Your task to perform on an android device: turn on location history Image 0: 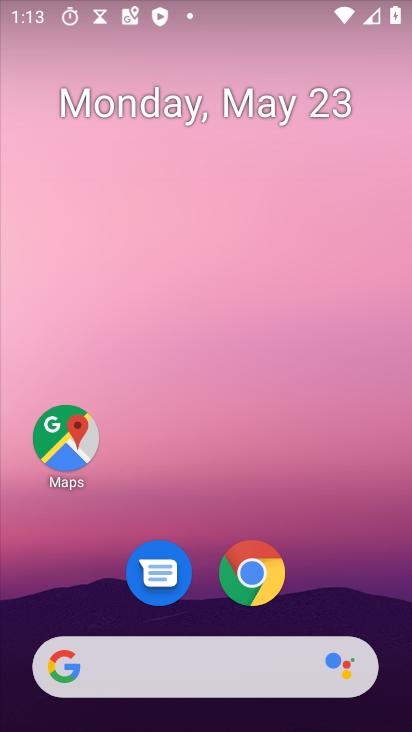
Step 0: press home button
Your task to perform on an android device: turn on location history Image 1: 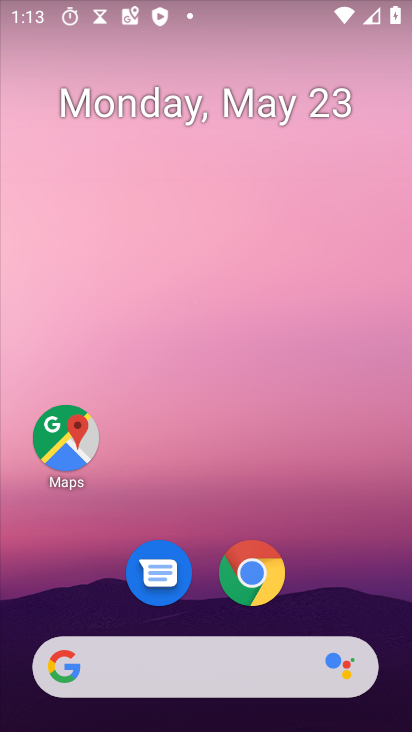
Step 1: click (71, 427)
Your task to perform on an android device: turn on location history Image 2: 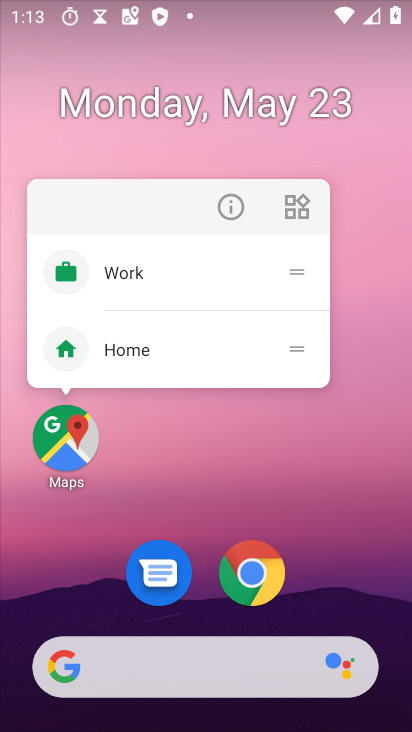
Step 2: click (77, 457)
Your task to perform on an android device: turn on location history Image 3: 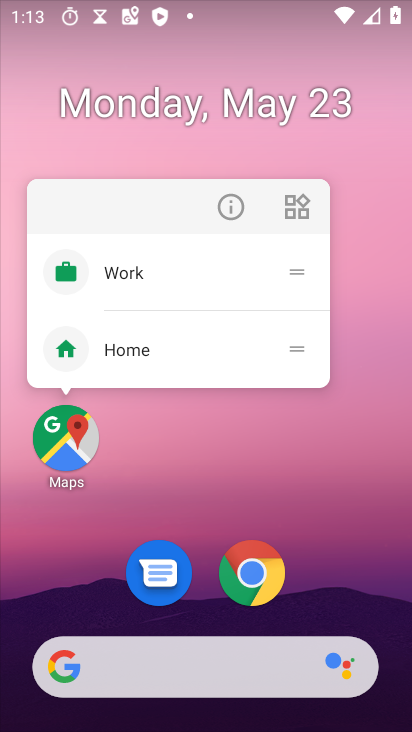
Step 3: click (68, 460)
Your task to perform on an android device: turn on location history Image 4: 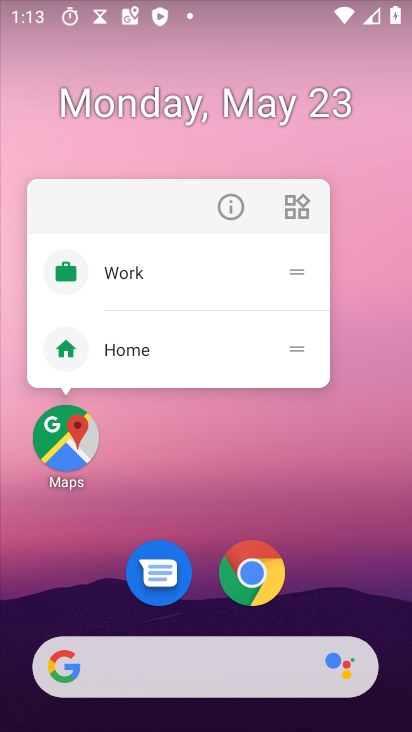
Step 4: click (61, 450)
Your task to perform on an android device: turn on location history Image 5: 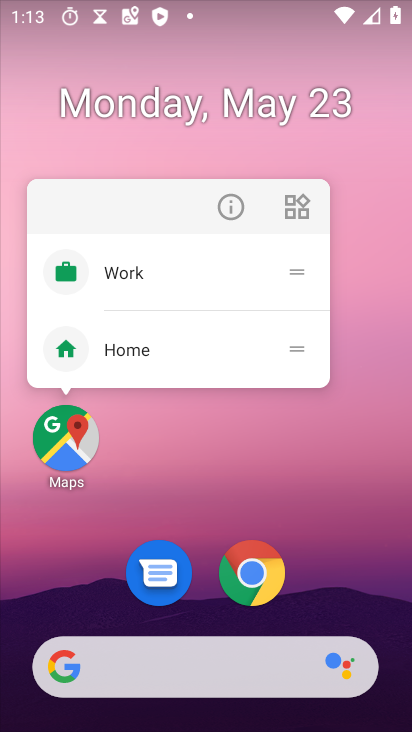
Step 5: click (66, 444)
Your task to perform on an android device: turn on location history Image 6: 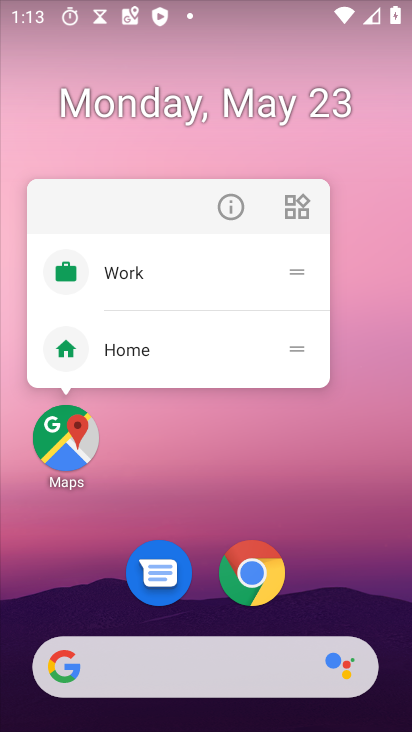
Step 6: click (62, 454)
Your task to perform on an android device: turn on location history Image 7: 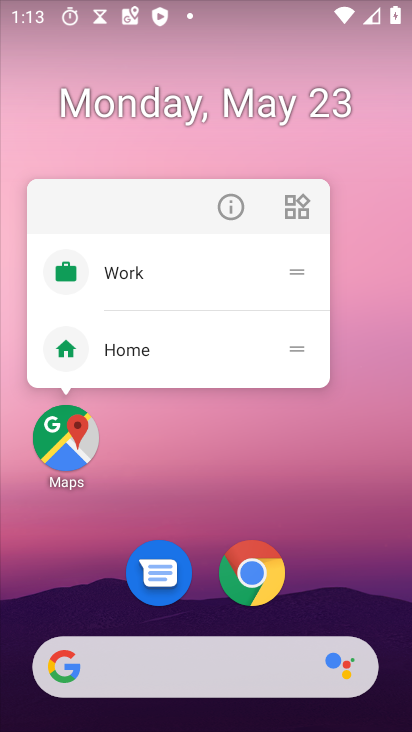
Step 7: click (66, 444)
Your task to perform on an android device: turn on location history Image 8: 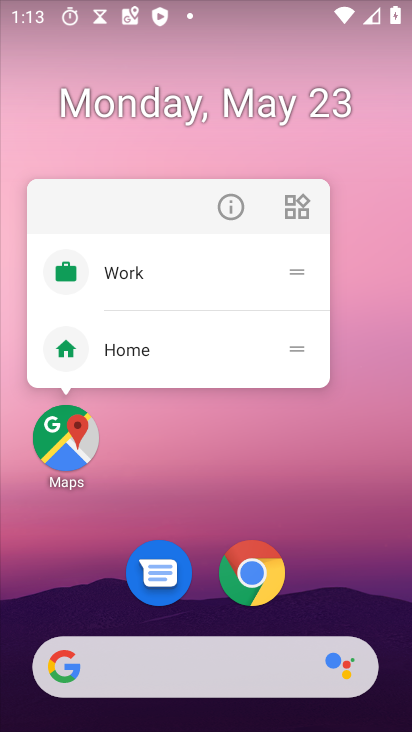
Step 8: click (67, 456)
Your task to perform on an android device: turn on location history Image 9: 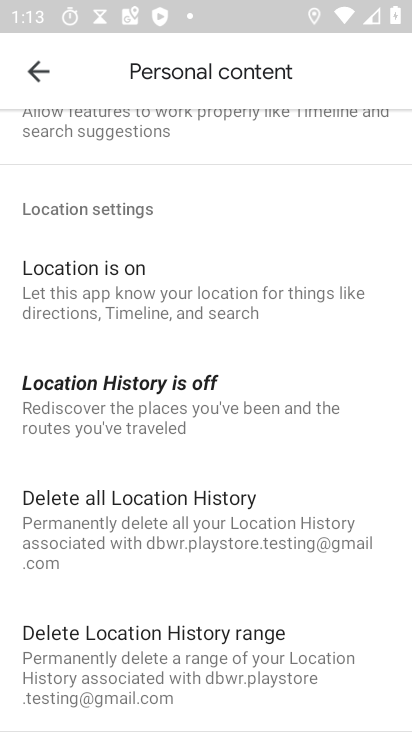
Step 9: click (211, 392)
Your task to perform on an android device: turn on location history Image 10: 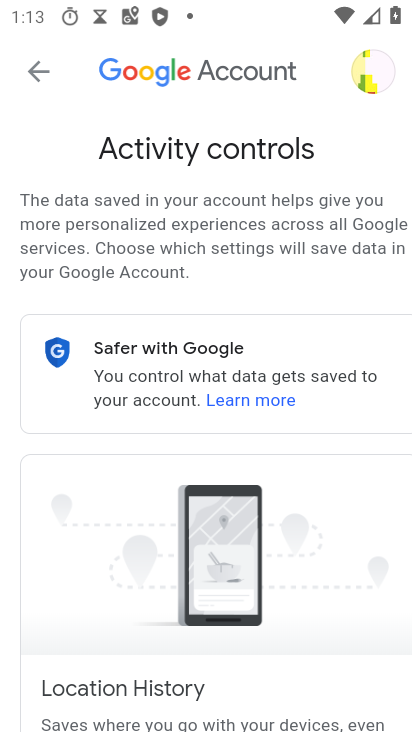
Step 10: drag from (178, 519) to (320, 83)
Your task to perform on an android device: turn on location history Image 11: 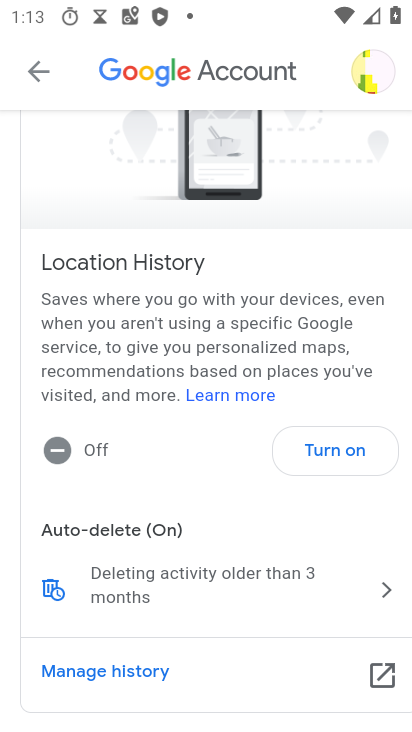
Step 11: click (329, 449)
Your task to perform on an android device: turn on location history Image 12: 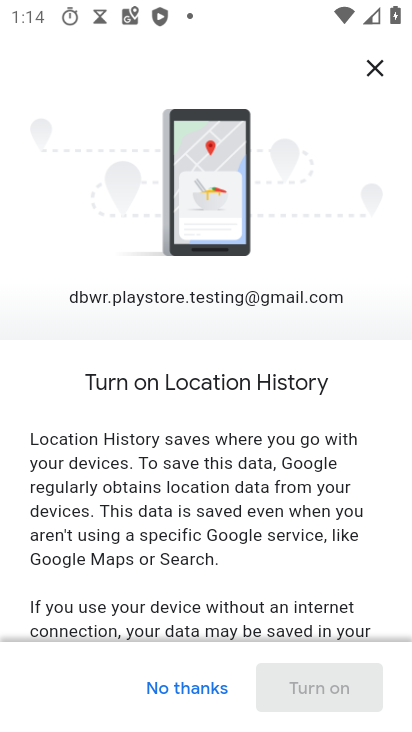
Step 12: drag from (243, 583) to (325, 90)
Your task to perform on an android device: turn on location history Image 13: 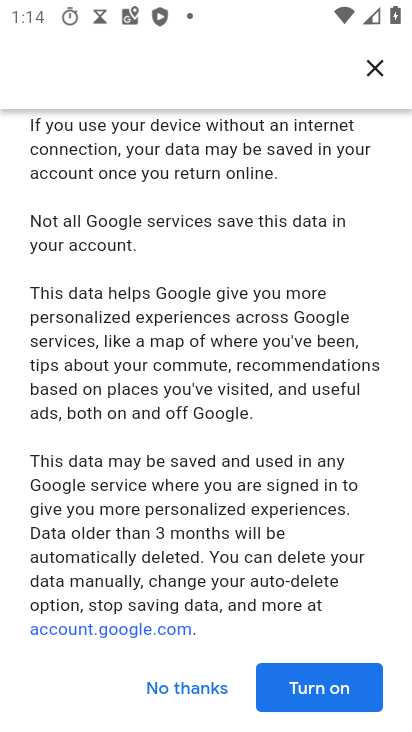
Step 13: drag from (228, 596) to (342, 131)
Your task to perform on an android device: turn on location history Image 14: 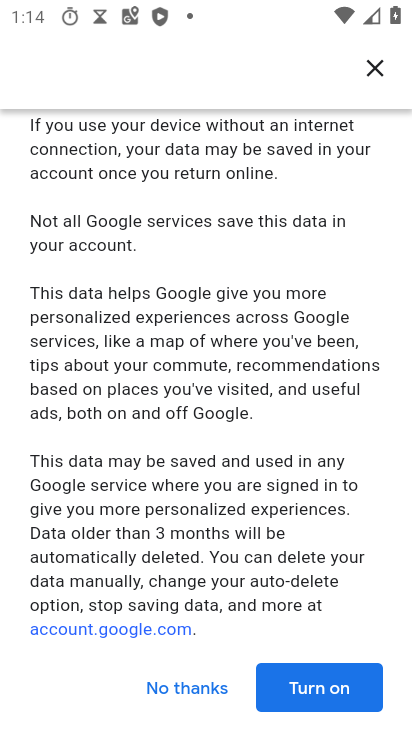
Step 14: click (322, 693)
Your task to perform on an android device: turn on location history Image 15: 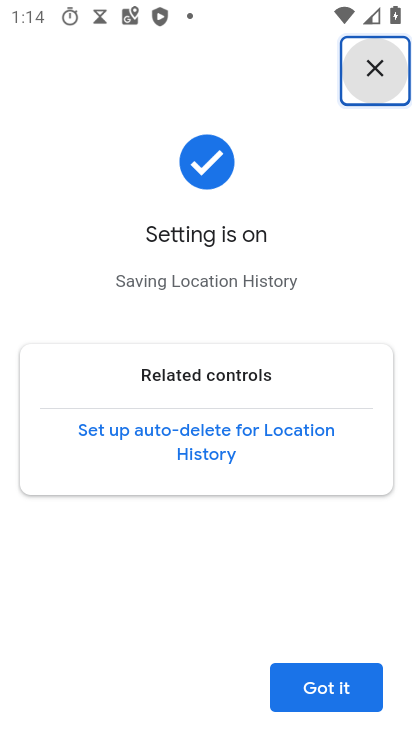
Step 15: click (333, 690)
Your task to perform on an android device: turn on location history Image 16: 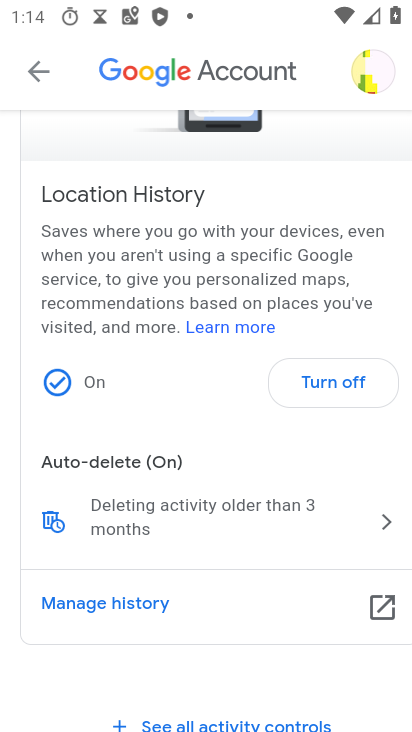
Step 16: task complete